Your task to perform on an android device: turn vacation reply on in the gmail app Image 0: 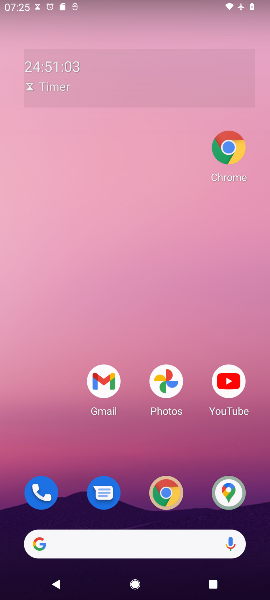
Step 0: press home button
Your task to perform on an android device: turn vacation reply on in the gmail app Image 1: 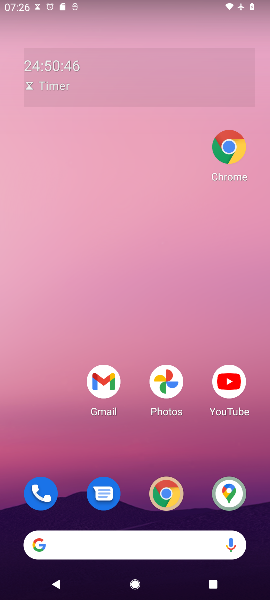
Step 1: click (105, 385)
Your task to perform on an android device: turn vacation reply on in the gmail app Image 2: 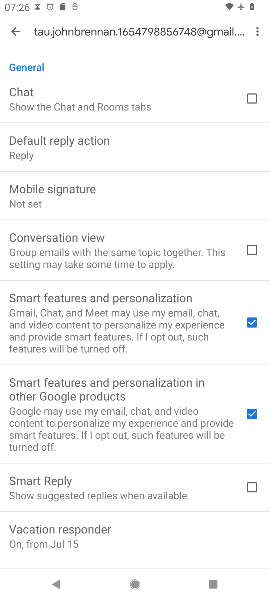
Step 2: click (47, 535)
Your task to perform on an android device: turn vacation reply on in the gmail app Image 3: 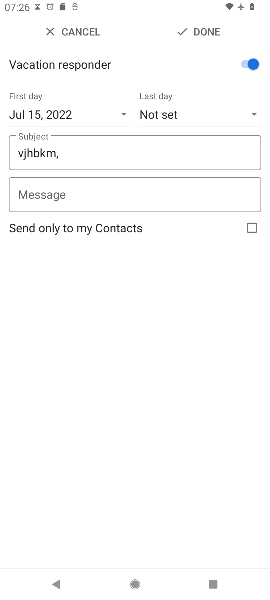
Step 3: task complete